Your task to perform on an android device: Search for Italian restaurants on Maps Image 0: 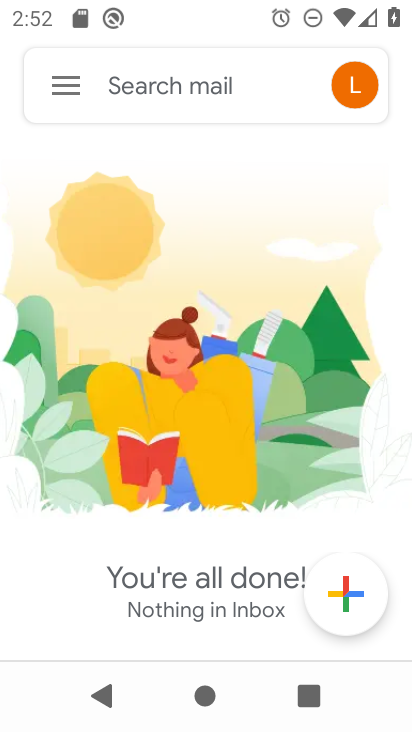
Step 0: press home button
Your task to perform on an android device: Search for Italian restaurants on Maps Image 1: 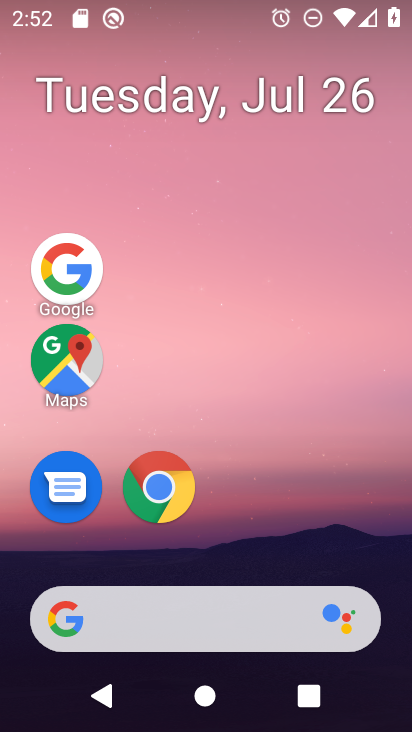
Step 1: drag from (223, 637) to (218, 184)
Your task to perform on an android device: Search for Italian restaurants on Maps Image 2: 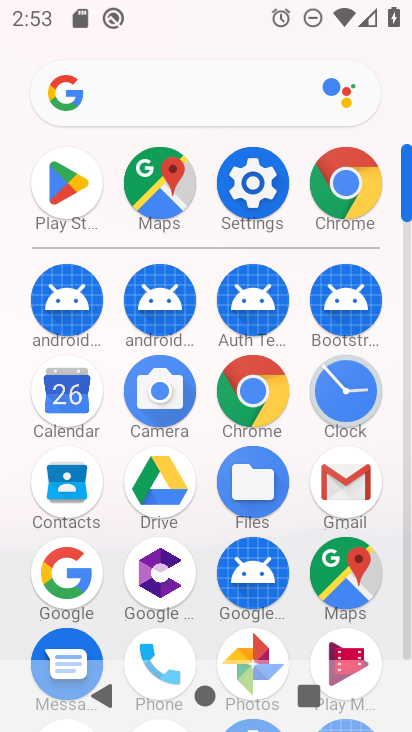
Step 2: drag from (249, 390) to (260, 191)
Your task to perform on an android device: Search for Italian restaurants on Maps Image 3: 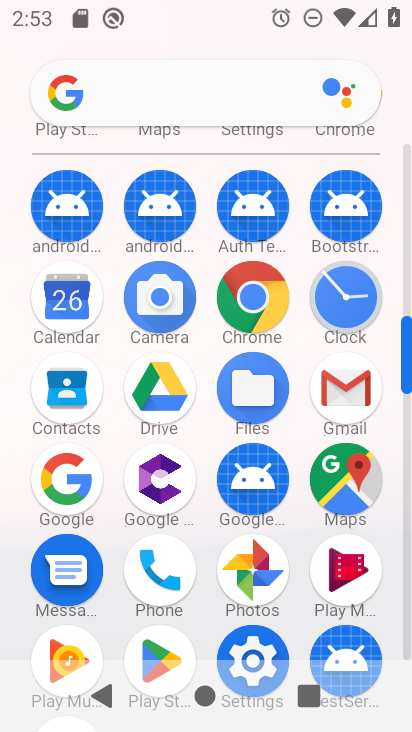
Step 3: click (340, 494)
Your task to perform on an android device: Search for Italian restaurants on Maps Image 4: 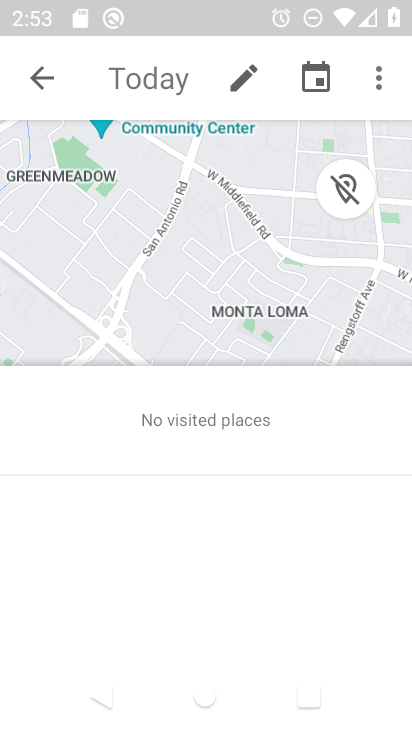
Step 4: click (43, 87)
Your task to perform on an android device: Search for Italian restaurants on Maps Image 5: 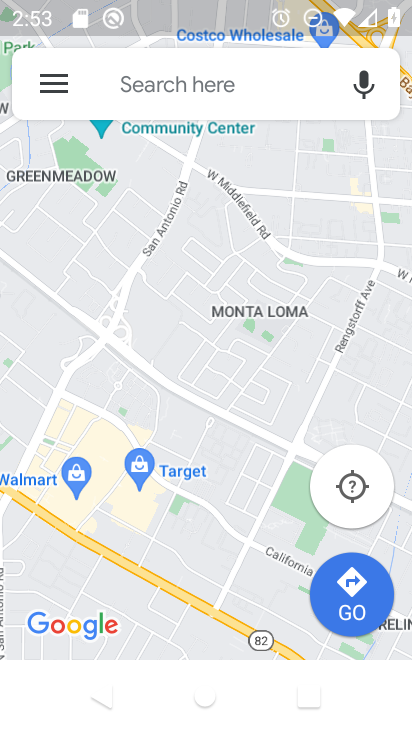
Step 5: click (169, 82)
Your task to perform on an android device: Search for Italian restaurants on Maps Image 6: 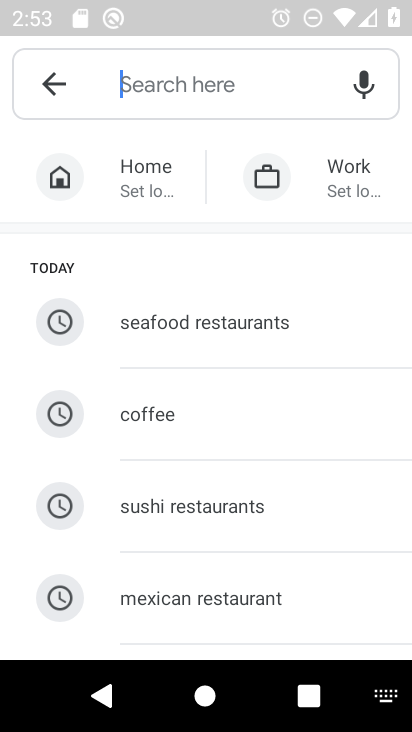
Step 6: drag from (218, 504) to (235, 237)
Your task to perform on an android device: Search for Italian restaurants on Maps Image 7: 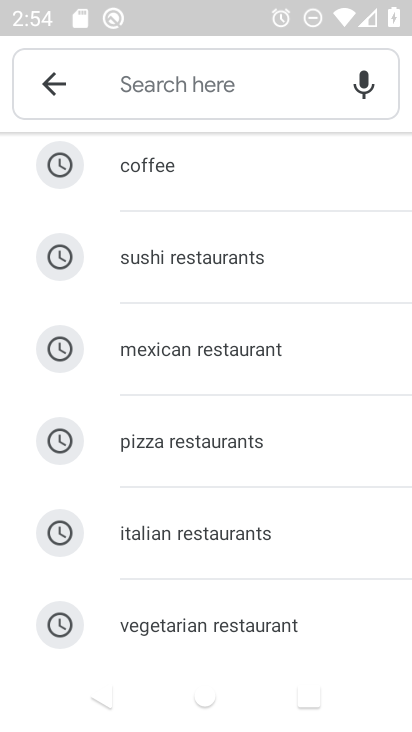
Step 7: click (222, 539)
Your task to perform on an android device: Search for Italian restaurants on Maps Image 8: 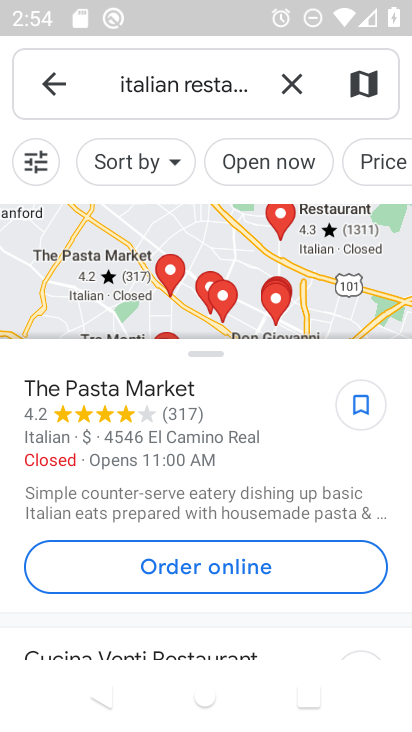
Step 8: task complete